Your task to perform on an android device: open wifi settings Image 0: 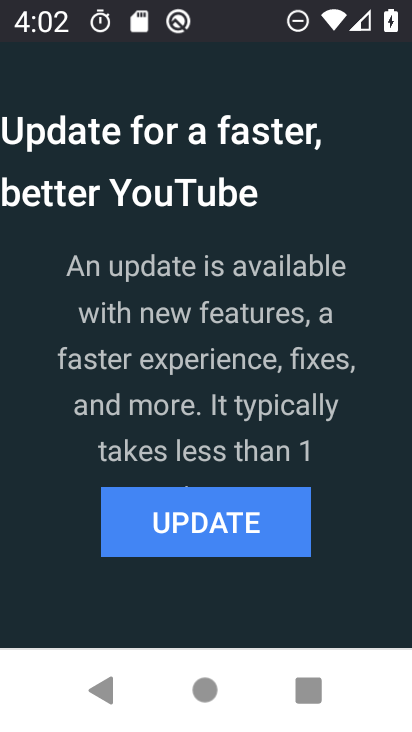
Step 0: press home button
Your task to perform on an android device: open wifi settings Image 1: 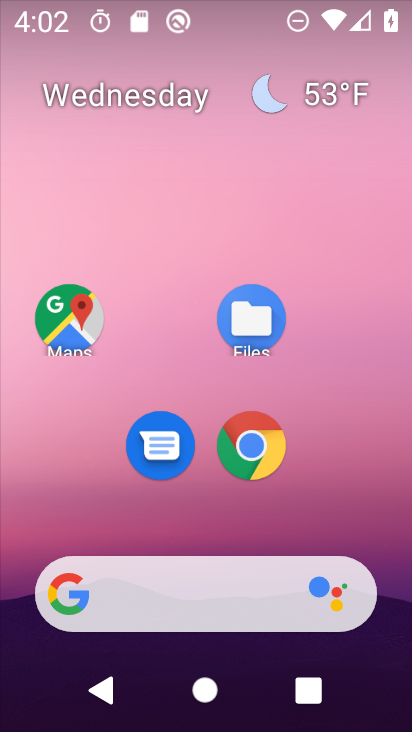
Step 1: drag from (314, 497) to (360, 116)
Your task to perform on an android device: open wifi settings Image 2: 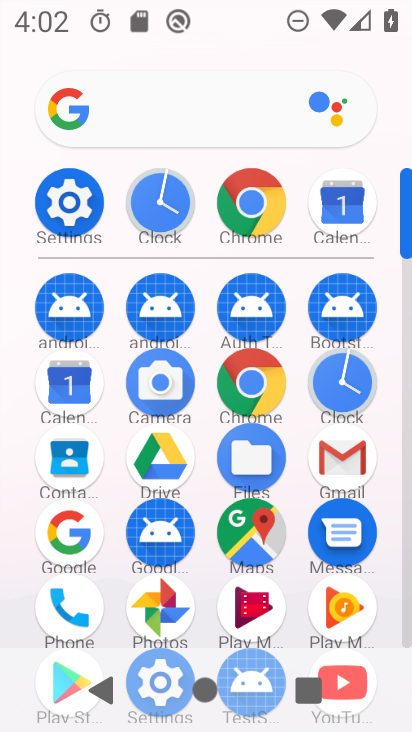
Step 2: click (46, 194)
Your task to perform on an android device: open wifi settings Image 3: 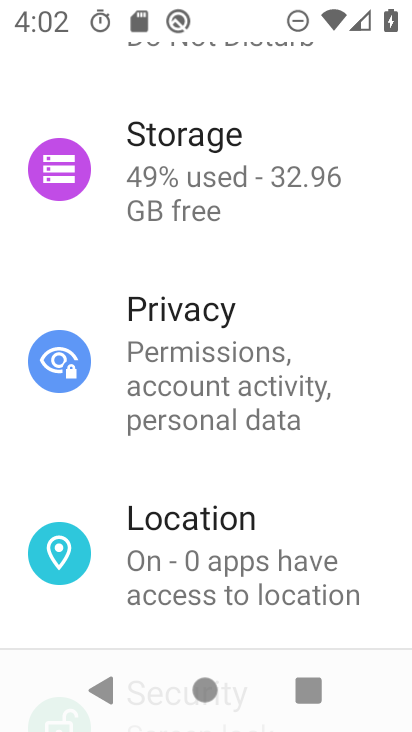
Step 3: drag from (261, 100) to (230, 469)
Your task to perform on an android device: open wifi settings Image 4: 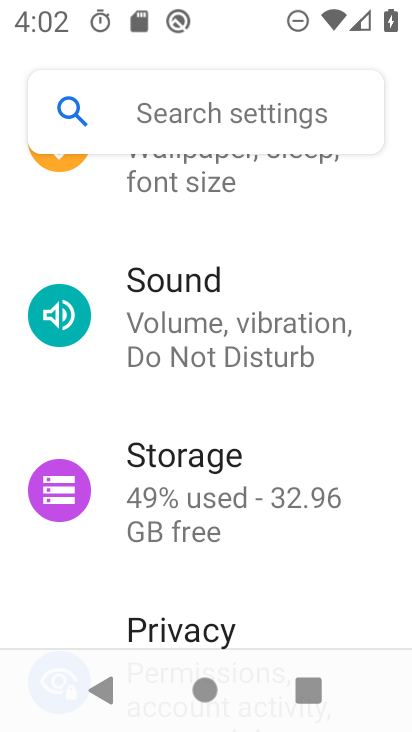
Step 4: drag from (292, 223) to (313, 578)
Your task to perform on an android device: open wifi settings Image 5: 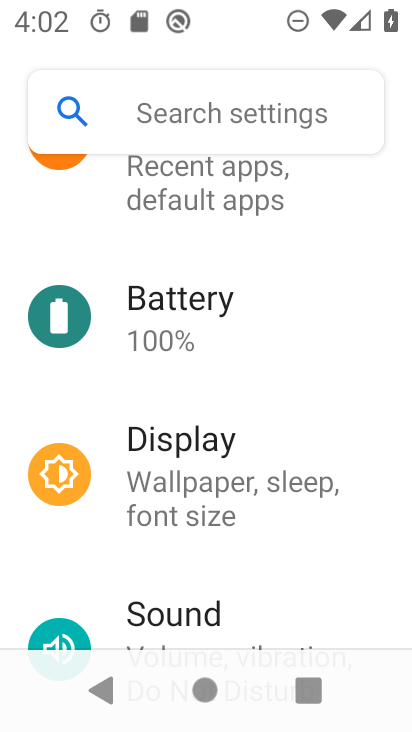
Step 5: drag from (289, 230) to (271, 582)
Your task to perform on an android device: open wifi settings Image 6: 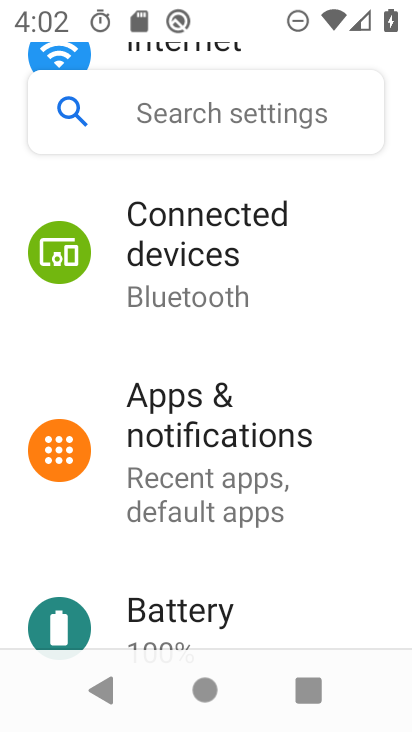
Step 6: drag from (274, 239) to (283, 540)
Your task to perform on an android device: open wifi settings Image 7: 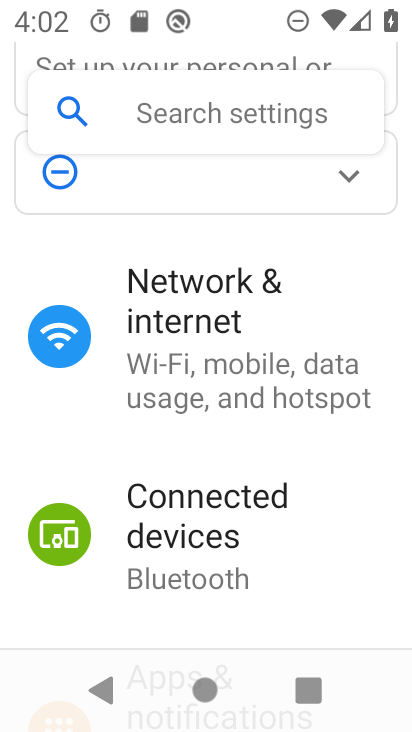
Step 7: click (293, 363)
Your task to perform on an android device: open wifi settings Image 8: 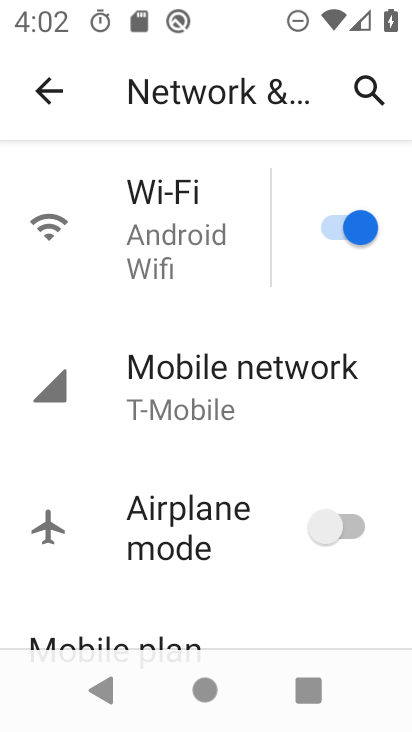
Step 8: task complete